Your task to perform on an android device: change alarm snooze length Image 0: 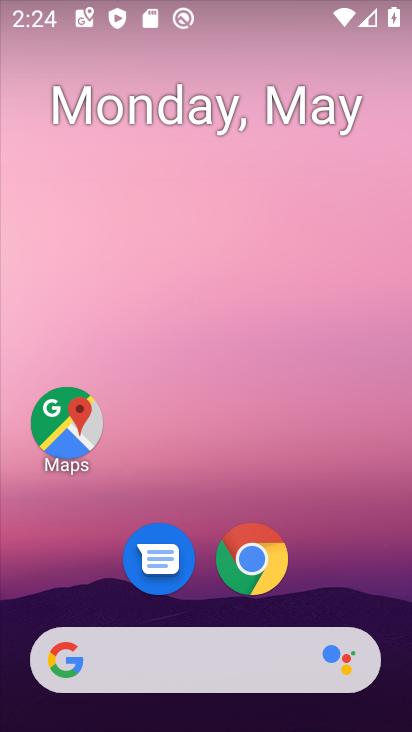
Step 0: drag from (202, 721) to (202, 212)
Your task to perform on an android device: change alarm snooze length Image 1: 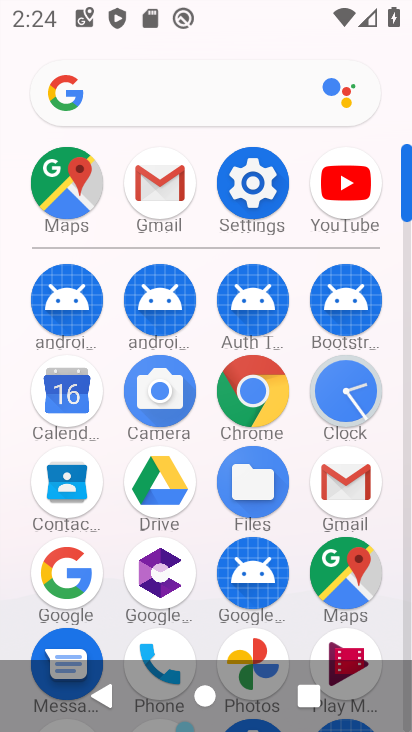
Step 1: click (359, 389)
Your task to perform on an android device: change alarm snooze length Image 2: 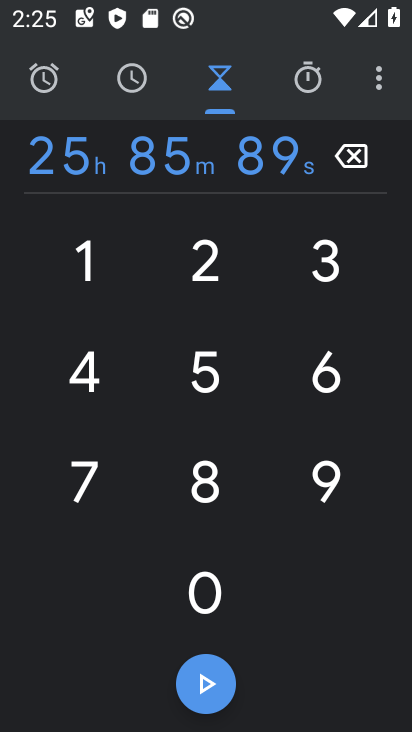
Step 2: click (375, 75)
Your task to perform on an android device: change alarm snooze length Image 3: 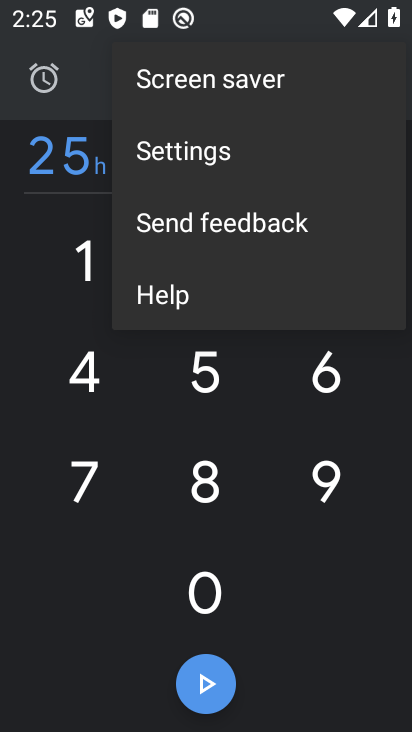
Step 3: click (228, 150)
Your task to perform on an android device: change alarm snooze length Image 4: 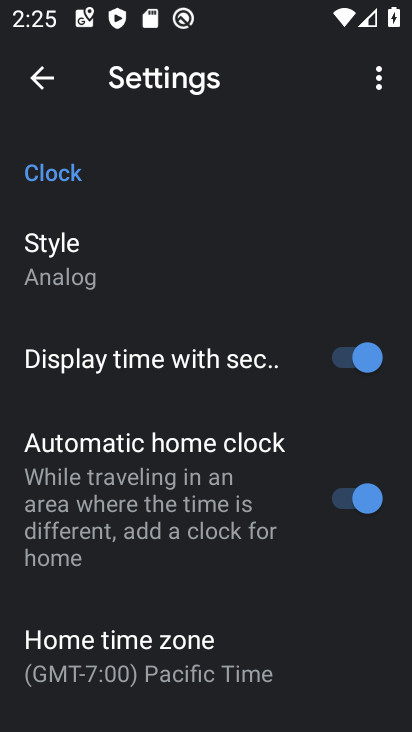
Step 4: drag from (186, 619) to (138, 30)
Your task to perform on an android device: change alarm snooze length Image 5: 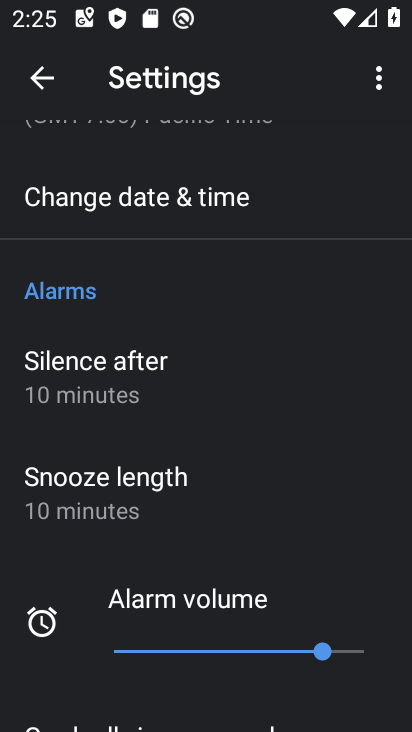
Step 5: click (66, 512)
Your task to perform on an android device: change alarm snooze length Image 6: 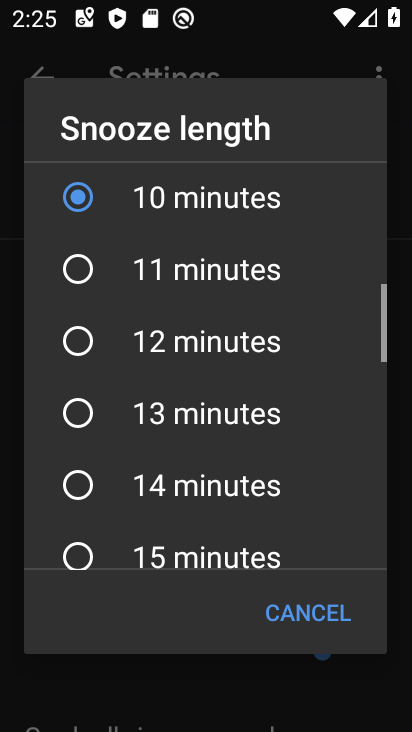
Step 6: click (120, 487)
Your task to perform on an android device: change alarm snooze length Image 7: 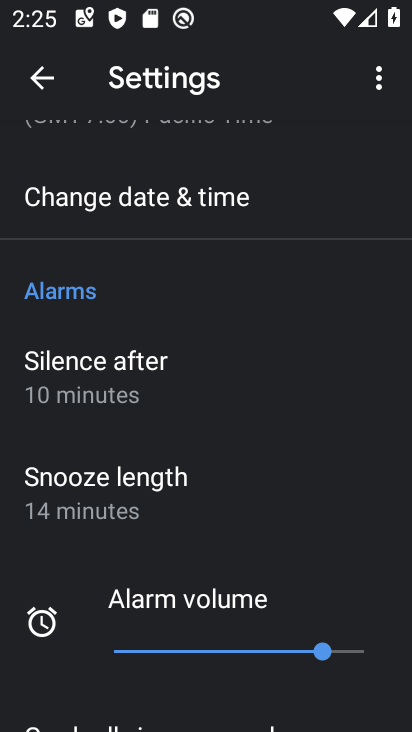
Step 7: task complete